Your task to perform on an android device: Open notification settings Image 0: 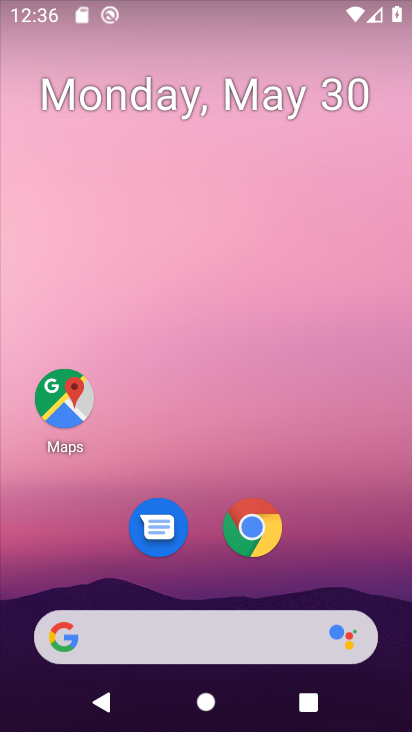
Step 0: drag from (381, 577) to (299, 77)
Your task to perform on an android device: Open notification settings Image 1: 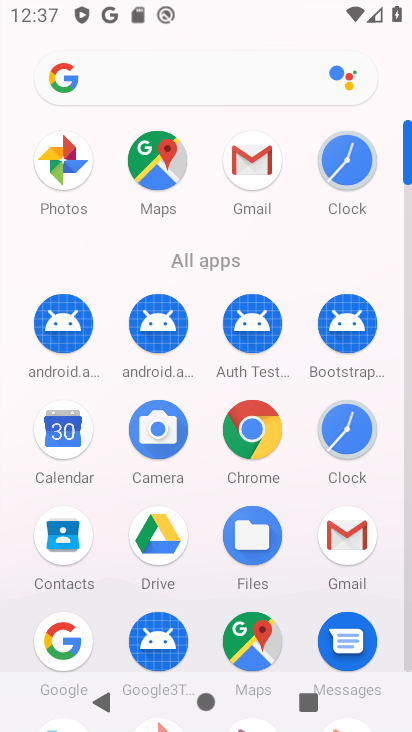
Step 1: click (404, 662)
Your task to perform on an android device: Open notification settings Image 2: 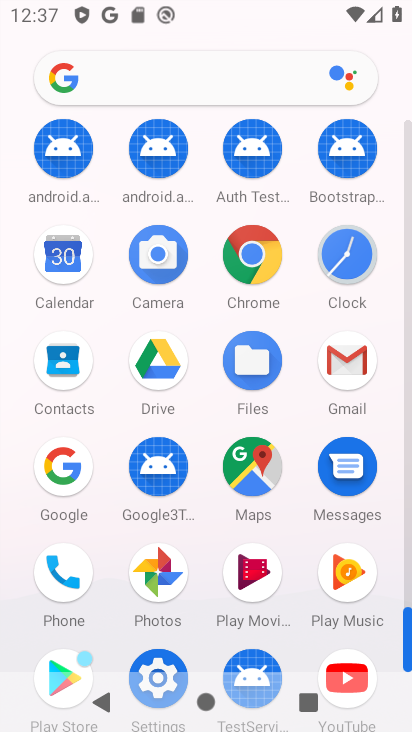
Step 2: click (160, 661)
Your task to perform on an android device: Open notification settings Image 3: 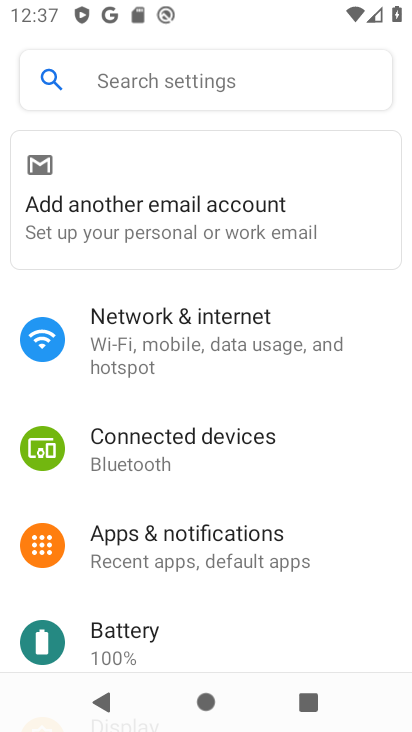
Step 3: click (273, 567)
Your task to perform on an android device: Open notification settings Image 4: 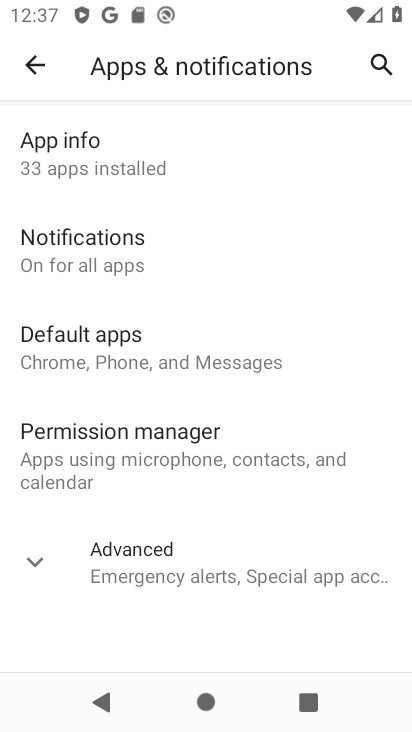
Step 4: click (208, 240)
Your task to perform on an android device: Open notification settings Image 5: 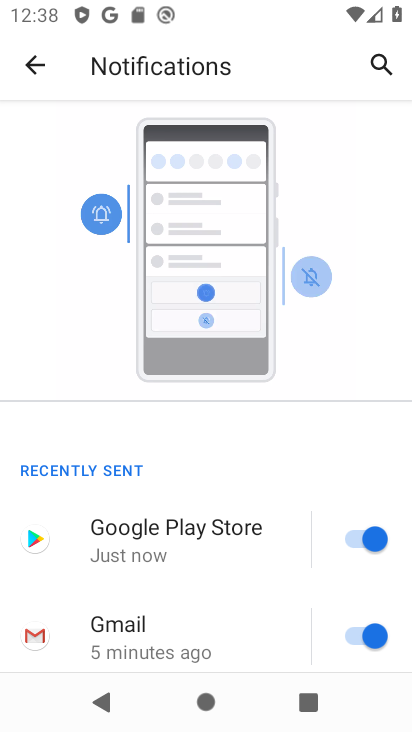
Step 5: task complete